Your task to perform on an android device: Search for vegetarian restaurants on Maps Image 0: 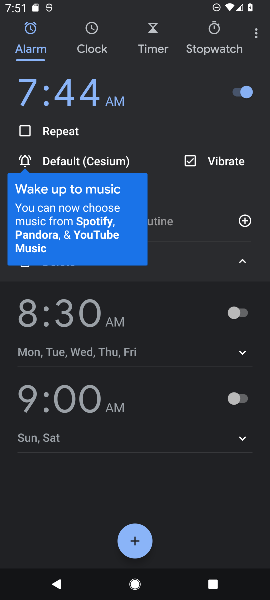
Step 0: press home button
Your task to perform on an android device: Search for vegetarian restaurants on Maps Image 1: 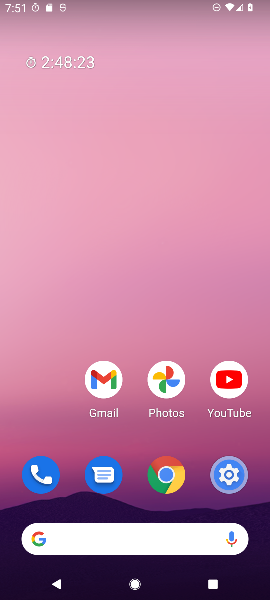
Step 1: drag from (45, 424) to (45, 198)
Your task to perform on an android device: Search for vegetarian restaurants on Maps Image 2: 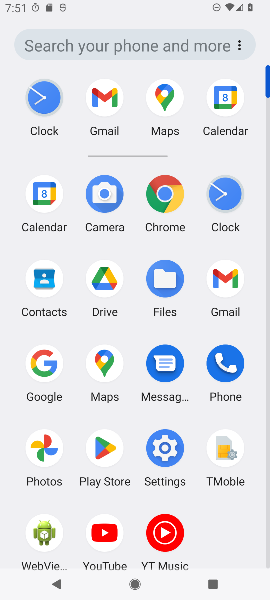
Step 2: click (101, 363)
Your task to perform on an android device: Search for vegetarian restaurants on Maps Image 3: 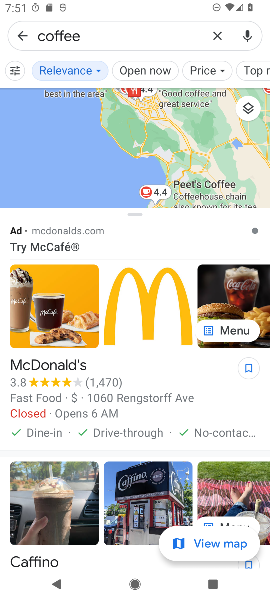
Step 3: click (216, 33)
Your task to perform on an android device: Search for vegetarian restaurants on Maps Image 4: 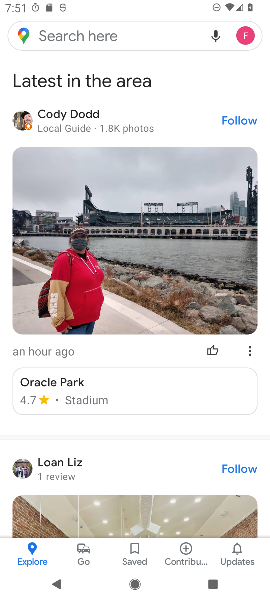
Step 4: click (133, 39)
Your task to perform on an android device: Search for vegetarian restaurants on Maps Image 5: 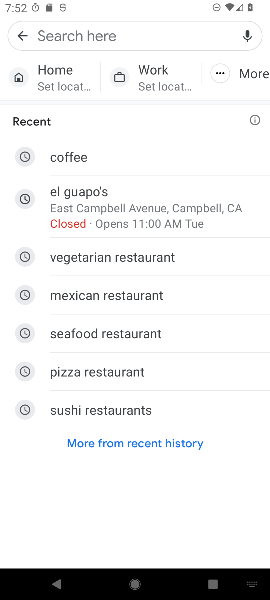
Step 5: type "vegetrain restaurants"
Your task to perform on an android device: Search for vegetarian restaurants on Maps Image 6: 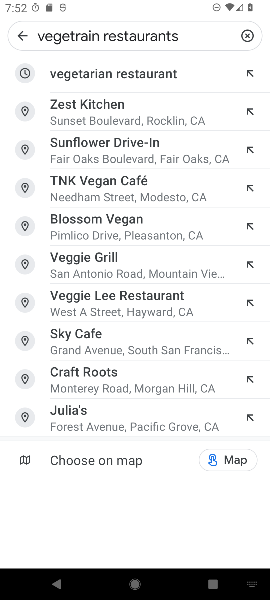
Step 6: click (176, 82)
Your task to perform on an android device: Search for vegetarian restaurants on Maps Image 7: 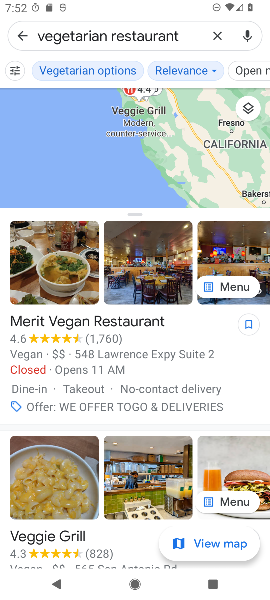
Step 7: task complete